Your task to perform on an android device: open app "Venmo" (install if not already installed) Image 0: 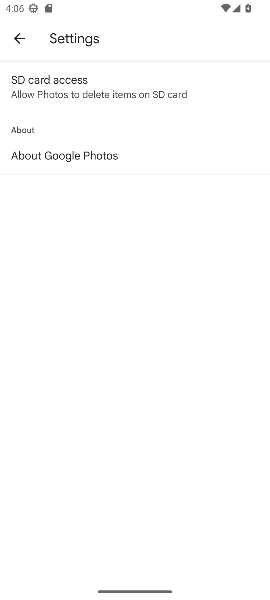
Step 0: press home button
Your task to perform on an android device: open app "Venmo" (install if not already installed) Image 1: 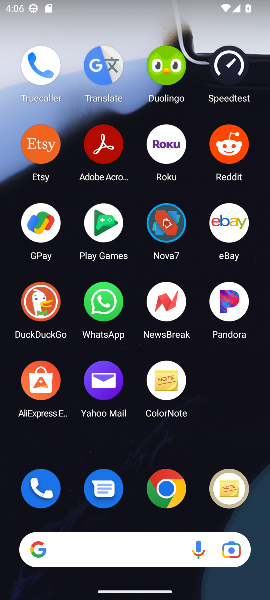
Step 1: drag from (138, 466) to (116, 0)
Your task to perform on an android device: open app "Venmo" (install if not already installed) Image 2: 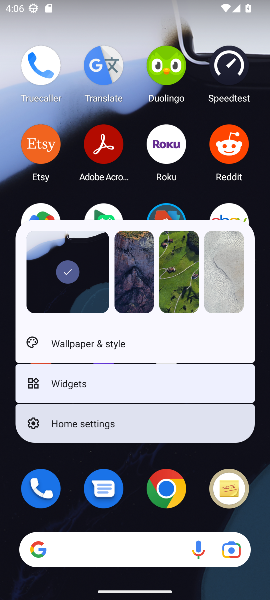
Step 2: click (135, 102)
Your task to perform on an android device: open app "Venmo" (install if not already installed) Image 3: 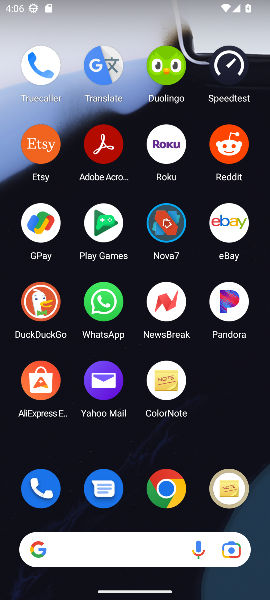
Step 3: drag from (130, 446) to (130, 77)
Your task to perform on an android device: open app "Venmo" (install if not already installed) Image 4: 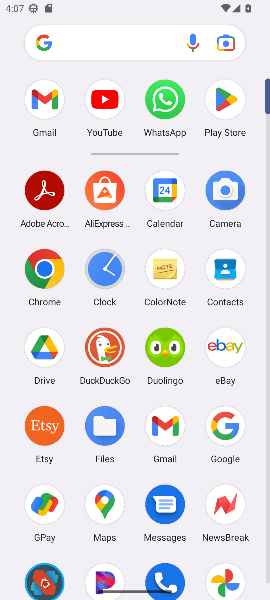
Step 4: click (220, 113)
Your task to perform on an android device: open app "Venmo" (install if not already installed) Image 5: 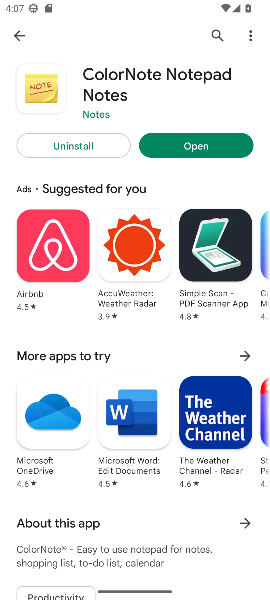
Step 5: click (218, 30)
Your task to perform on an android device: open app "Venmo" (install if not already installed) Image 6: 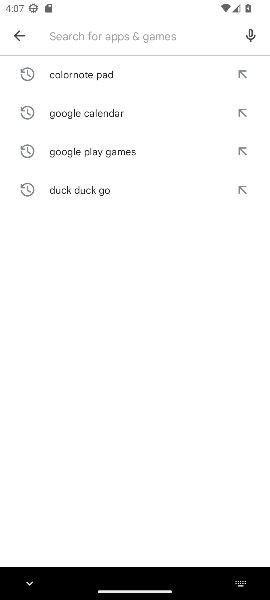
Step 6: type "venmo"
Your task to perform on an android device: open app "Venmo" (install if not already installed) Image 7: 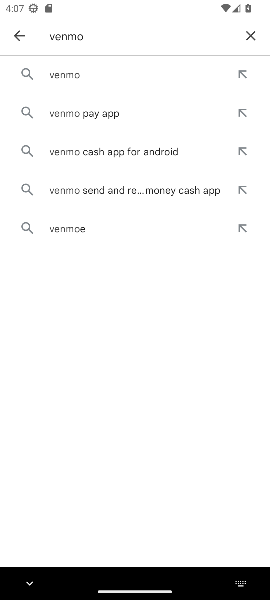
Step 7: click (74, 65)
Your task to perform on an android device: open app "Venmo" (install if not already installed) Image 8: 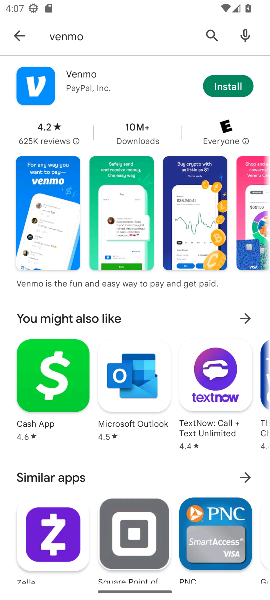
Step 8: click (213, 88)
Your task to perform on an android device: open app "Venmo" (install if not already installed) Image 9: 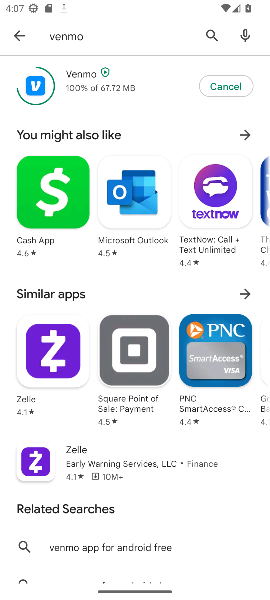
Step 9: task complete